Your task to perform on an android device: open app "Calculator" (install if not already installed) Image 0: 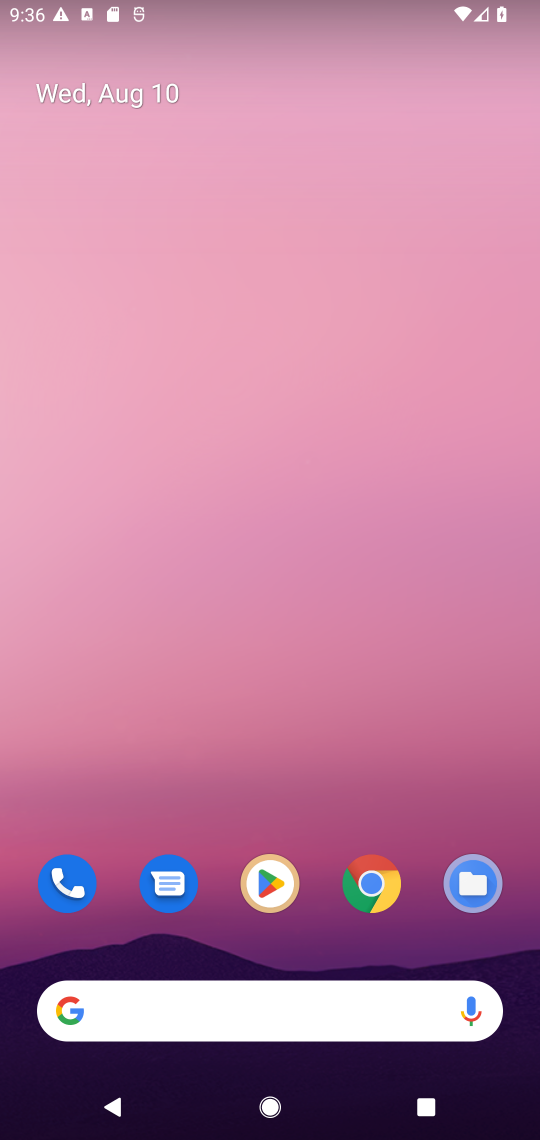
Step 0: drag from (312, 862) to (307, 153)
Your task to perform on an android device: open app "Calculator" (install if not already installed) Image 1: 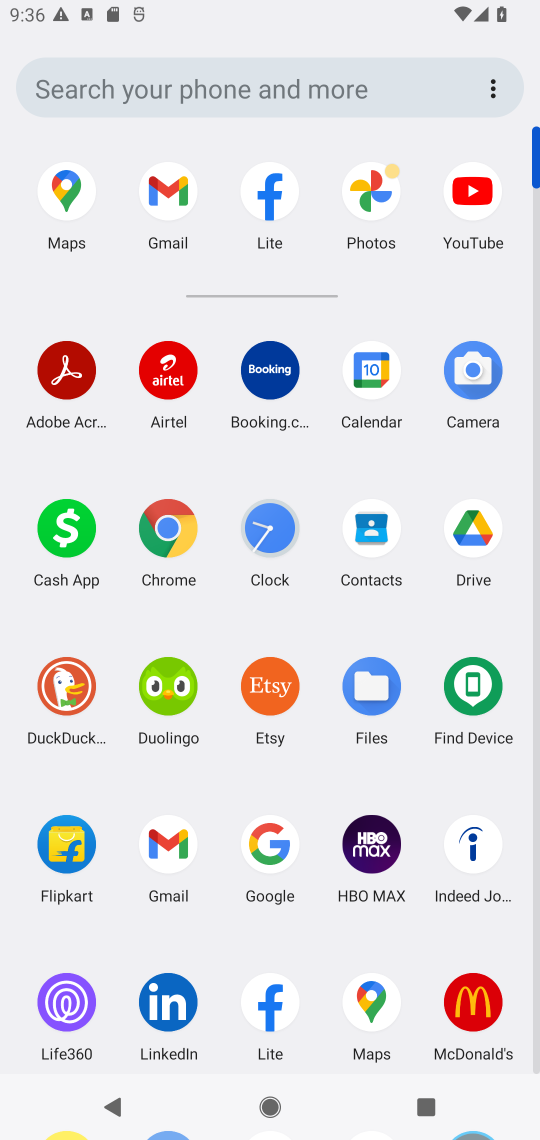
Step 1: drag from (346, 880) to (351, 256)
Your task to perform on an android device: open app "Calculator" (install if not already installed) Image 2: 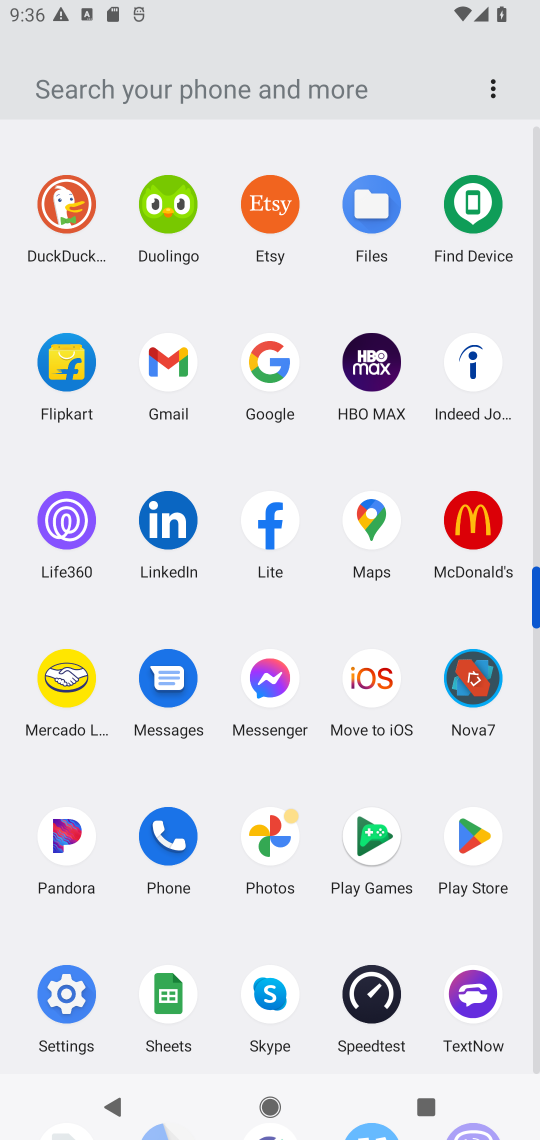
Step 2: drag from (370, 968) to (352, 393)
Your task to perform on an android device: open app "Calculator" (install if not already installed) Image 3: 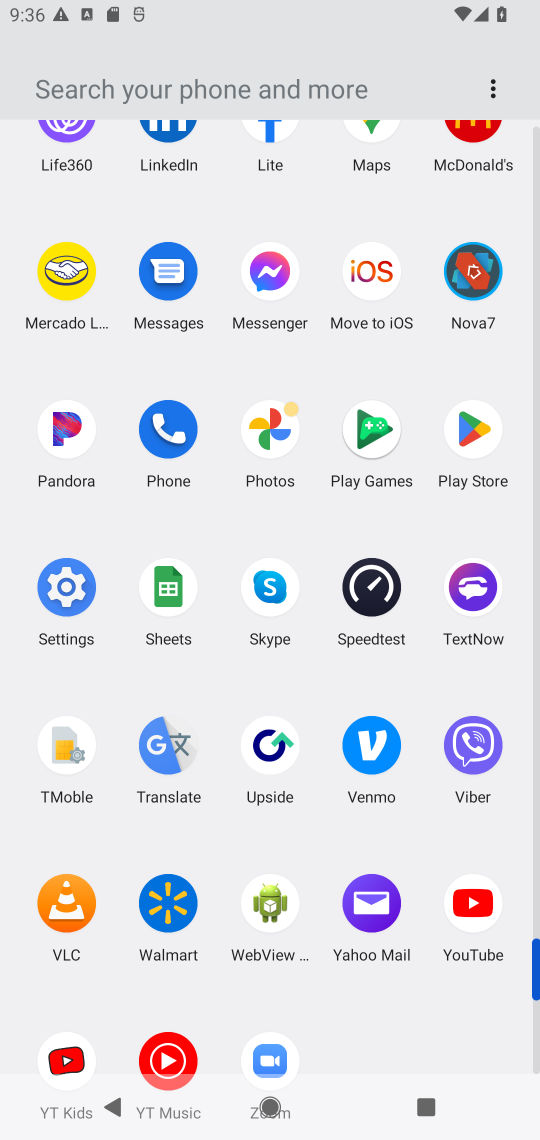
Step 3: click (473, 434)
Your task to perform on an android device: open app "Calculator" (install if not already installed) Image 4: 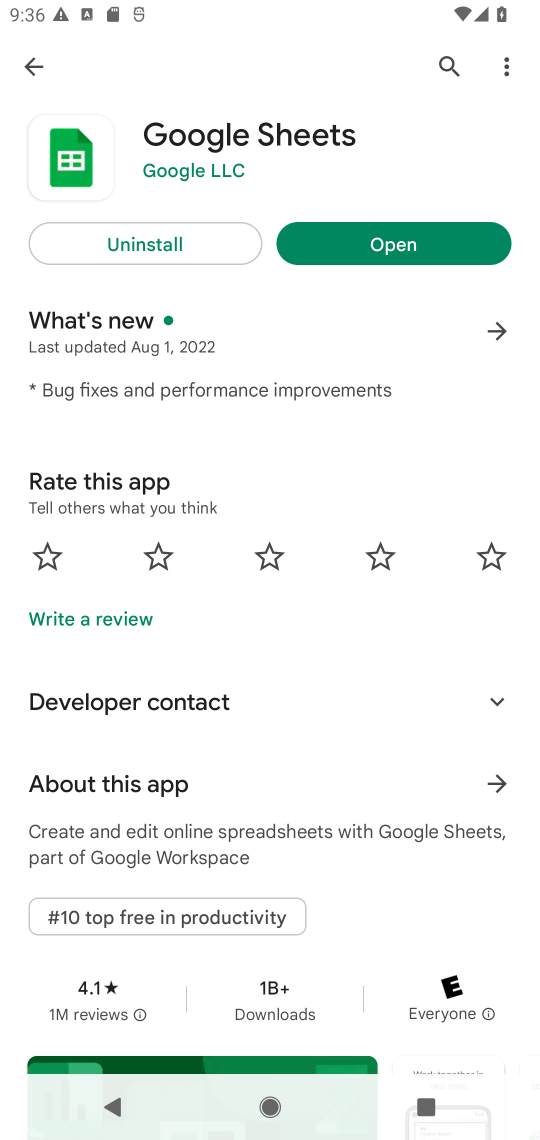
Step 4: click (449, 64)
Your task to perform on an android device: open app "Calculator" (install if not already installed) Image 5: 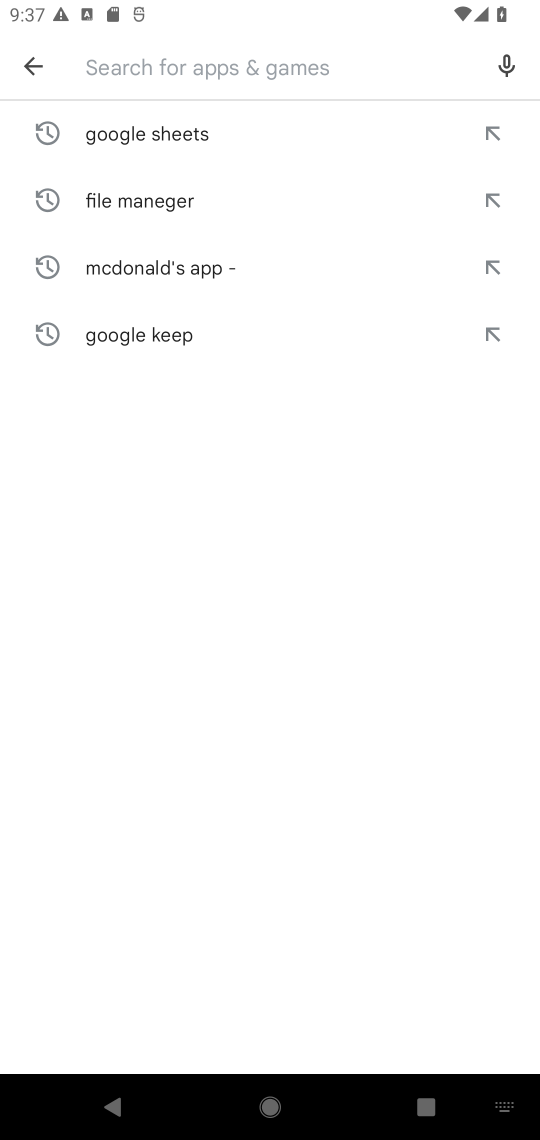
Step 5: type "Calculator"
Your task to perform on an android device: open app "Calculator" (install if not already installed) Image 6: 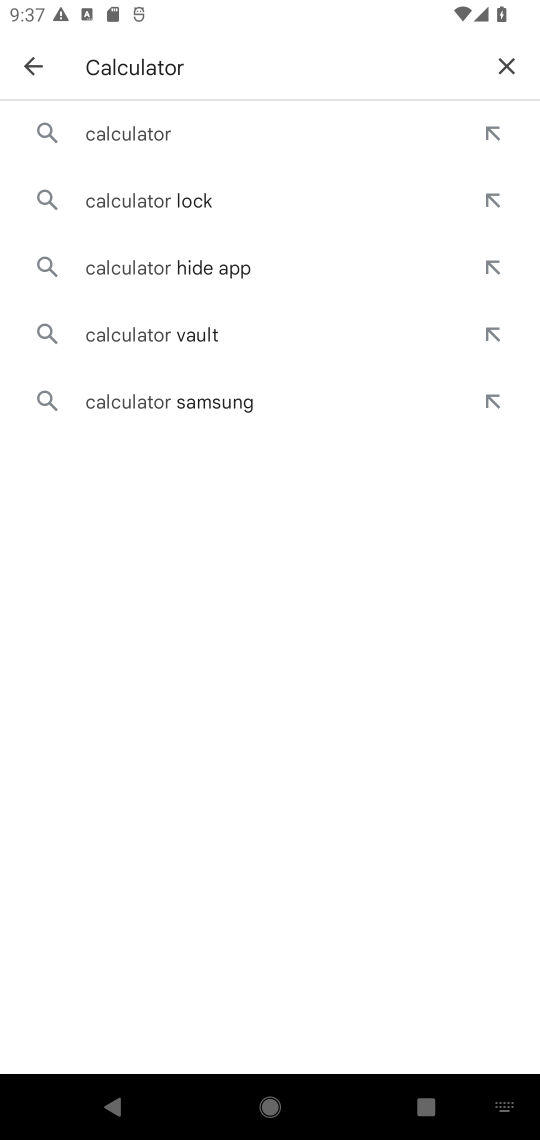
Step 6: click (147, 137)
Your task to perform on an android device: open app "Calculator" (install if not already installed) Image 7: 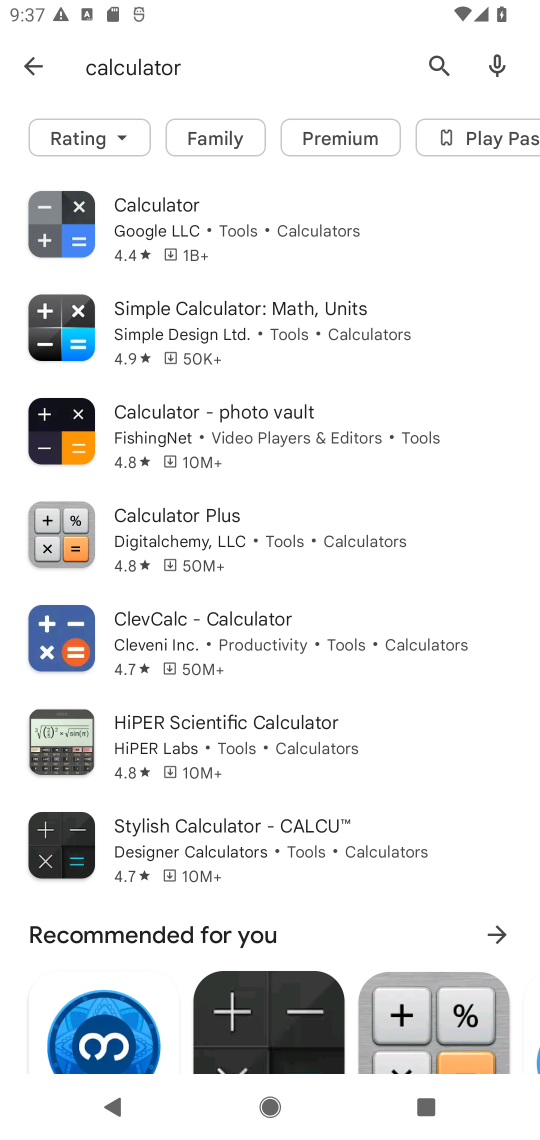
Step 7: click (173, 213)
Your task to perform on an android device: open app "Calculator" (install if not already installed) Image 8: 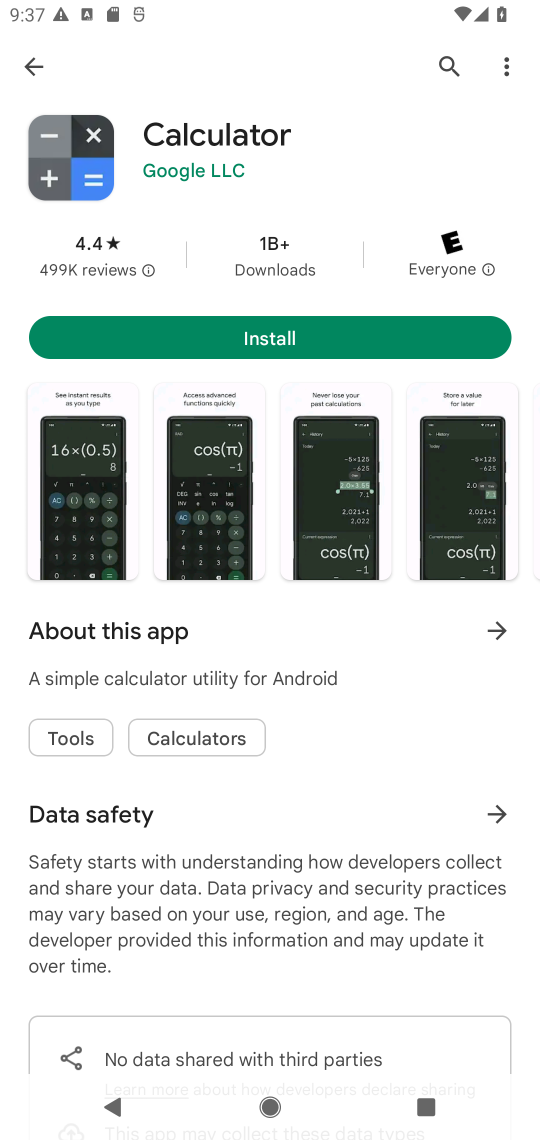
Step 8: click (228, 329)
Your task to perform on an android device: open app "Calculator" (install if not already installed) Image 9: 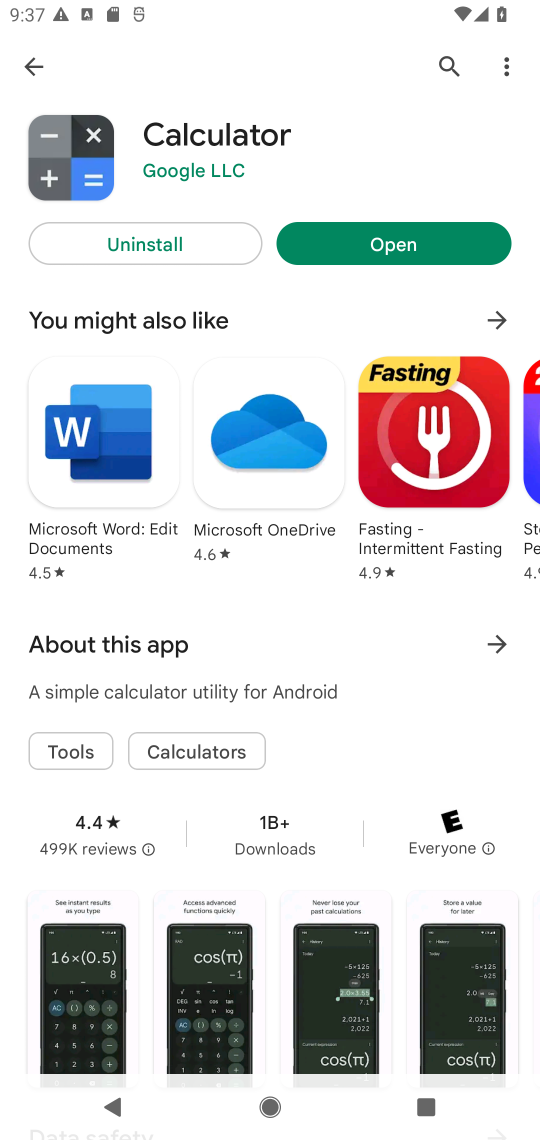
Step 9: click (404, 239)
Your task to perform on an android device: open app "Calculator" (install if not already installed) Image 10: 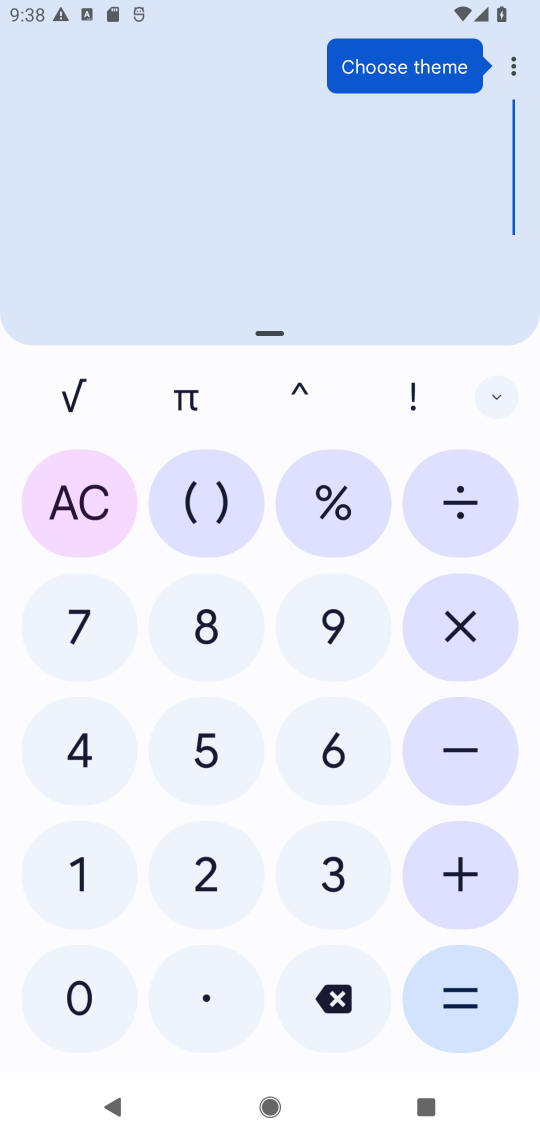
Step 10: task complete